Your task to perform on an android device: open a bookmark in the chrome app Image 0: 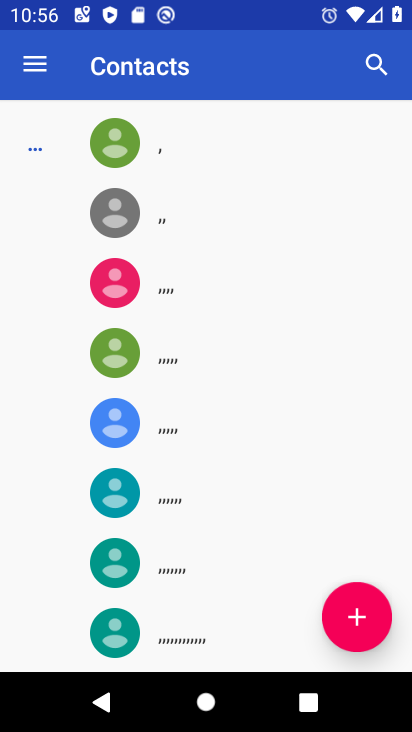
Step 0: press home button
Your task to perform on an android device: open a bookmark in the chrome app Image 1: 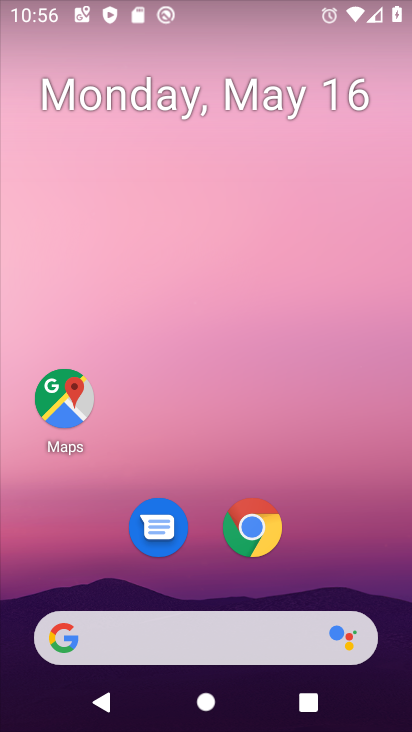
Step 1: click (241, 532)
Your task to perform on an android device: open a bookmark in the chrome app Image 2: 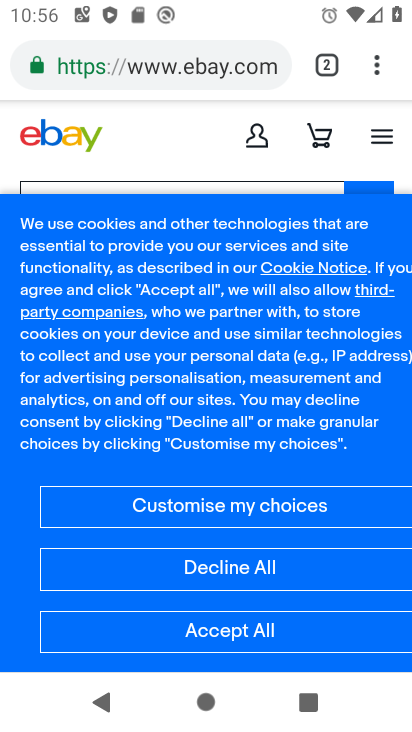
Step 2: click (381, 62)
Your task to perform on an android device: open a bookmark in the chrome app Image 3: 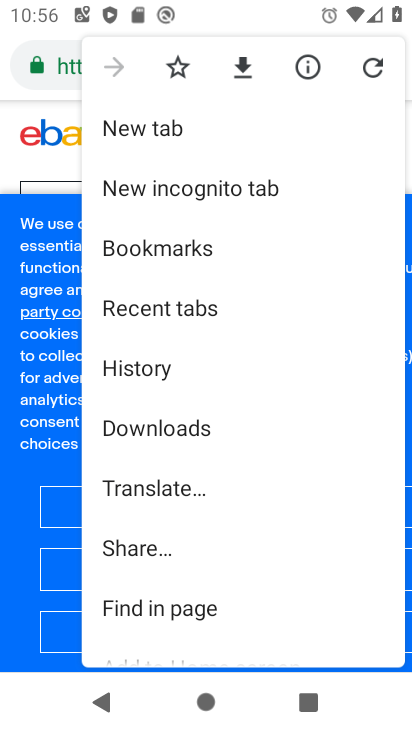
Step 3: click (138, 256)
Your task to perform on an android device: open a bookmark in the chrome app Image 4: 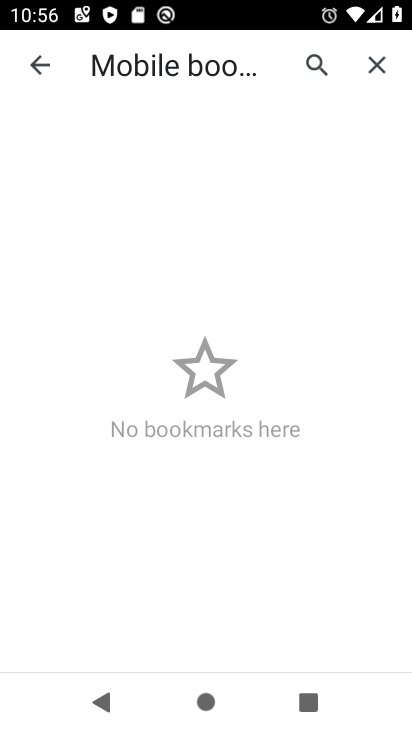
Step 4: task complete